Your task to perform on an android device: Go to CNN.com Image 0: 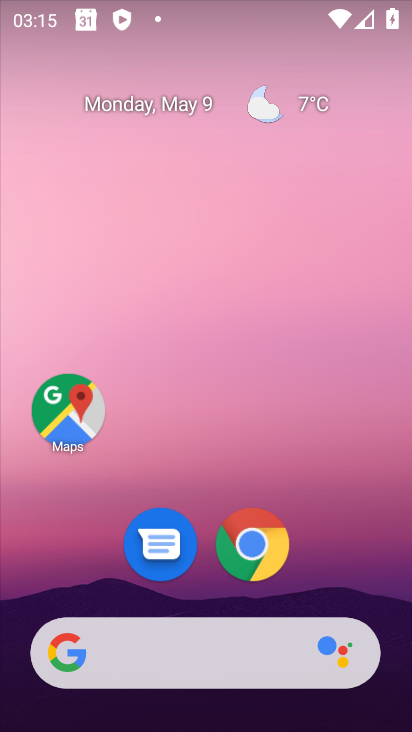
Step 0: click (242, 550)
Your task to perform on an android device: Go to CNN.com Image 1: 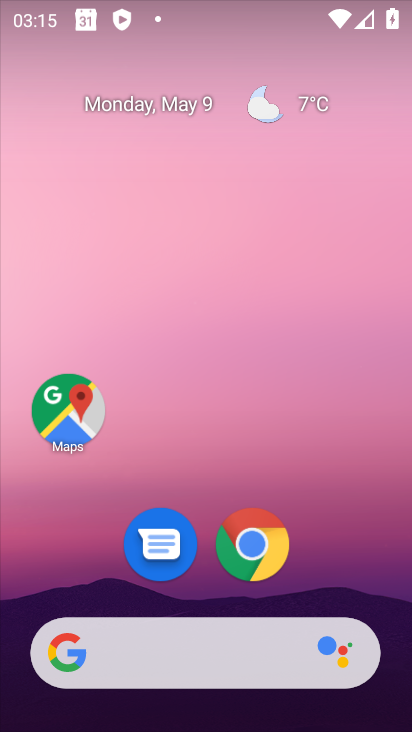
Step 1: click (242, 550)
Your task to perform on an android device: Go to CNN.com Image 2: 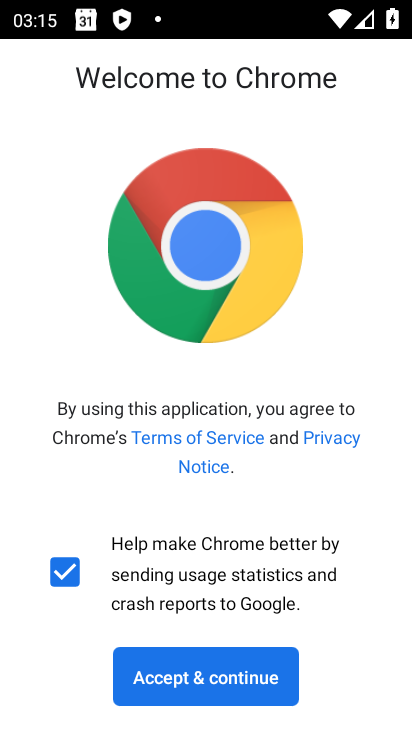
Step 2: click (253, 693)
Your task to perform on an android device: Go to CNN.com Image 3: 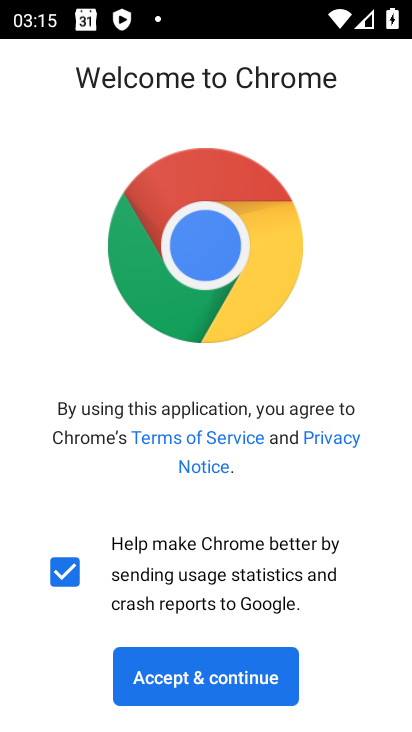
Step 3: click (253, 693)
Your task to perform on an android device: Go to CNN.com Image 4: 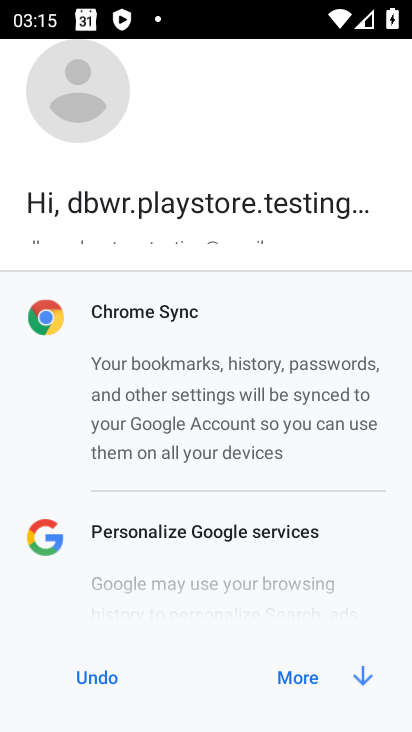
Step 4: click (346, 668)
Your task to perform on an android device: Go to CNN.com Image 5: 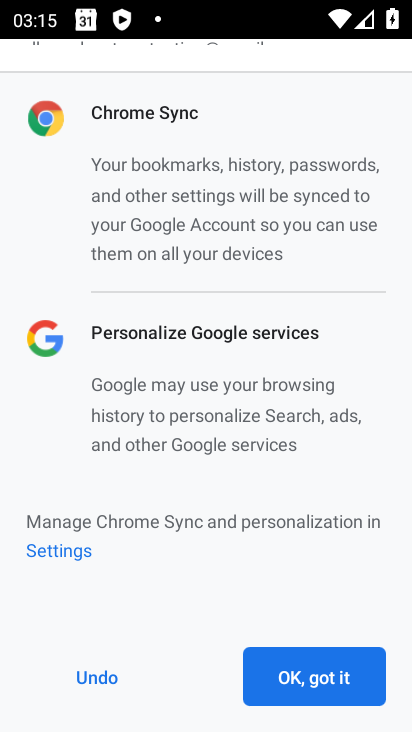
Step 5: click (346, 668)
Your task to perform on an android device: Go to CNN.com Image 6: 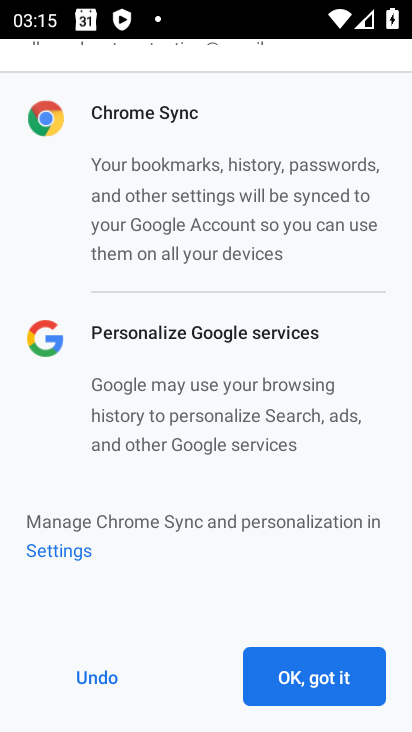
Step 6: click (346, 668)
Your task to perform on an android device: Go to CNN.com Image 7: 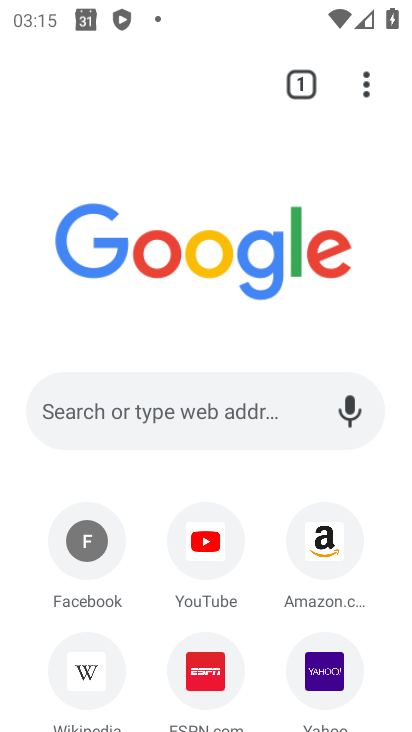
Step 7: click (255, 413)
Your task to perform on an android device: Go to CNN.com Image 8: 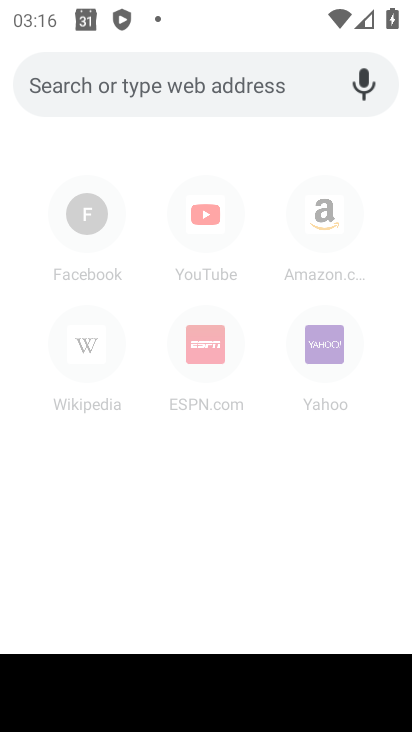
Step 8: type "CNN.com"
Your task to perform on an android device: Go to CNN.com Image 9: 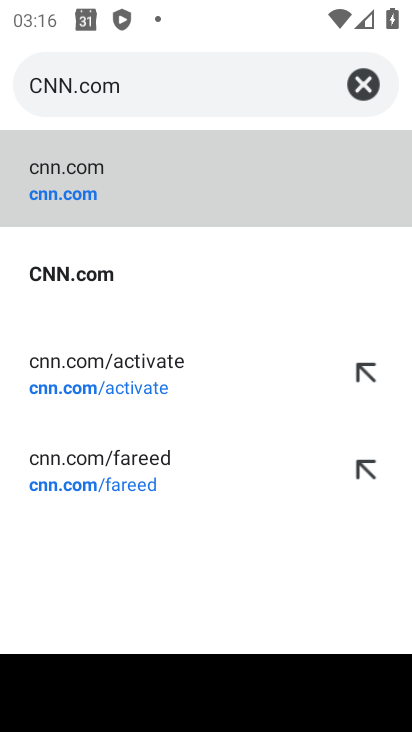
Step 9: click (300, 260)
Your task to perform on an android device: Go to CNN.com Image 10: 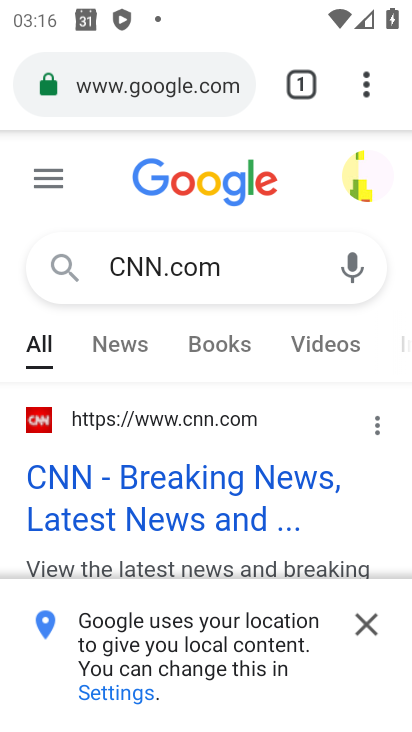
Step 10: click (214, 498)
Your task to perform on an android device: Go to CNN.com Image 11: 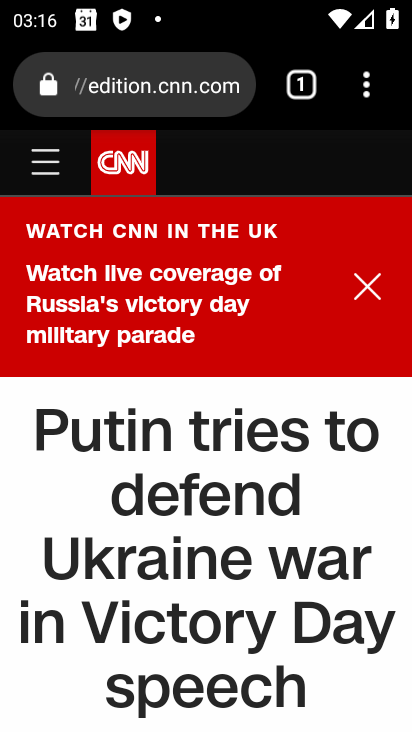
Step 11: task complete